Your task to perform on an android device: Open Yahoo.com Image 0: 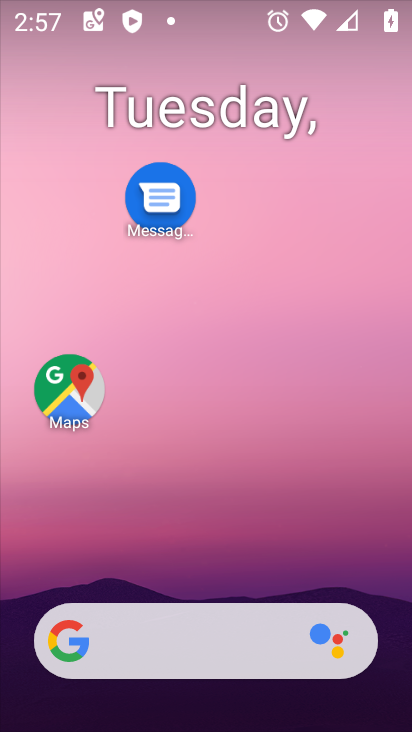
Step 0: drag from (234, 578) to (266, 302)
Your task to perform on an android device: Open Yahoo.com Image 1: 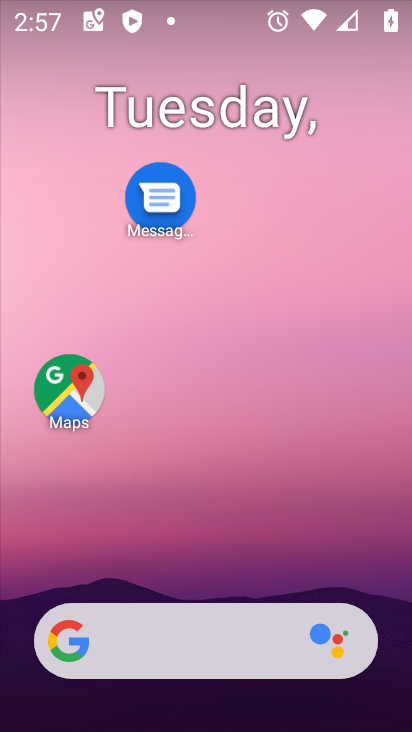
Step 1: drag from (202, 583) to (201, 173)
Your task to perform on an android device: Open Yahoo.com Image 2: 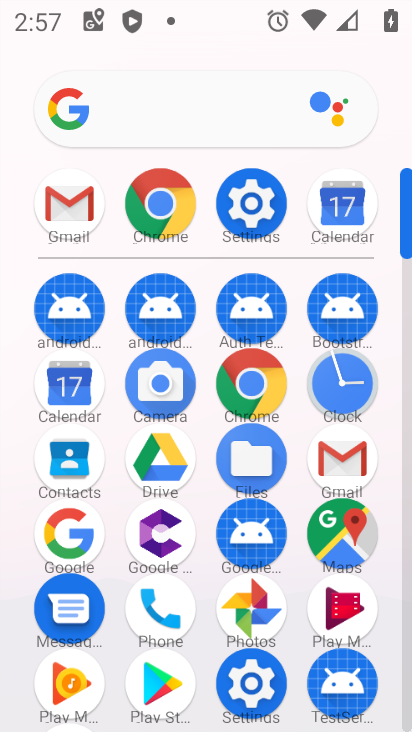
Step 2: click (166, 213)
Your task to perform on an android device: Open Yahoo.com Image 3: 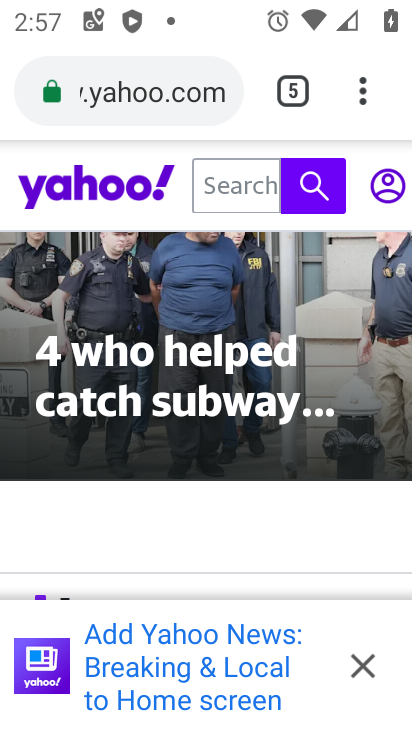
Step 3: task complete